Your task to perform on an android device: Do I have any events today? Image 0: 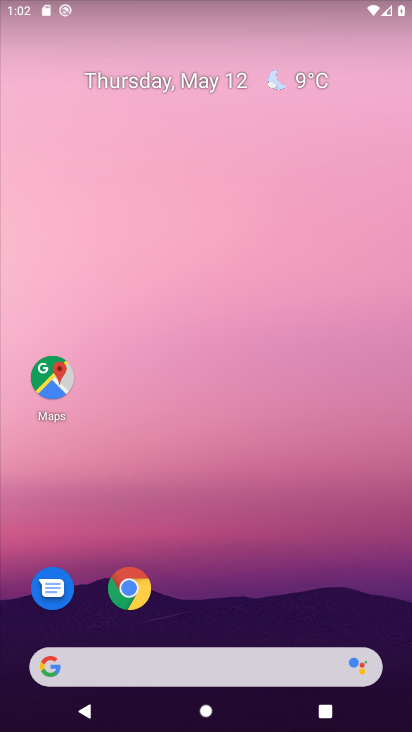
Step 0: click (244, 14)
Your task to perform on an android device: Do I have any events today? Image 1: 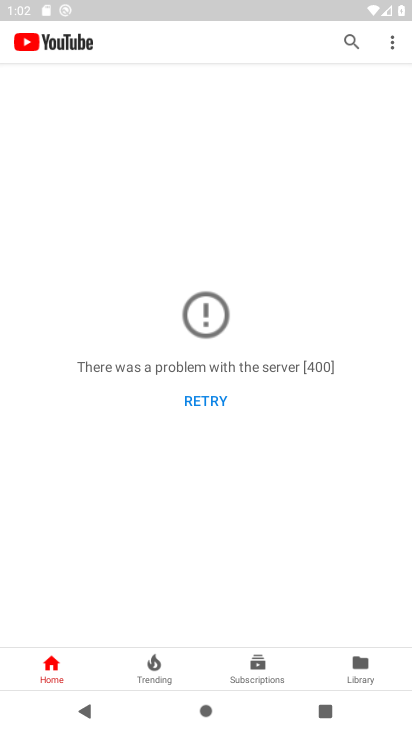
Step 1: press home button
Your task to perform on an android device: Do I have any events today? Image 2: 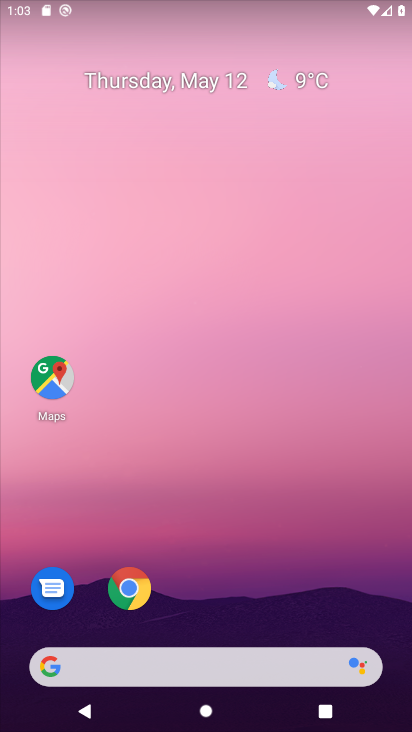
Step 2: drag from (344, 566) to (369, 32)
Your task to perform on an android device: Do I have any events today? Image 3: 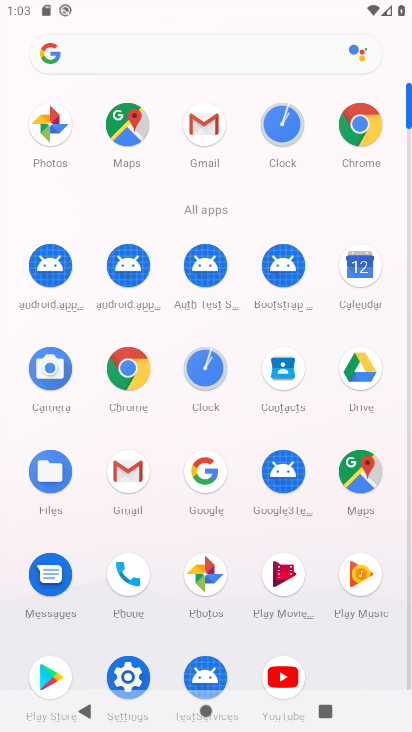
Step 3: click (395, 265)
Your task to perform on an android device: Do I have any events today? Image 4: 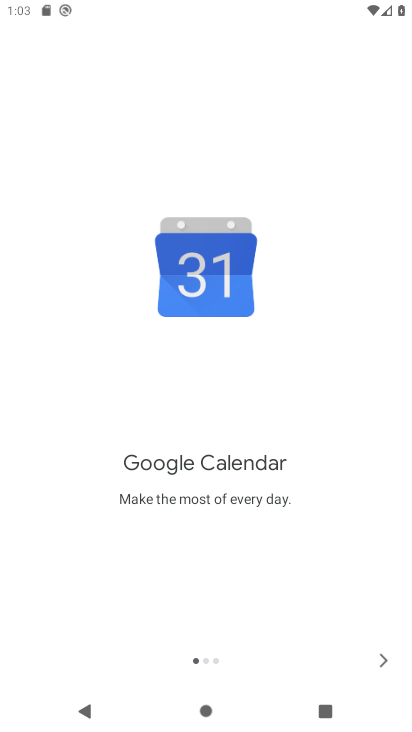
Step 4: click (384, 661)
Your task to perform on an android device: Do I have any events today? Image 5: 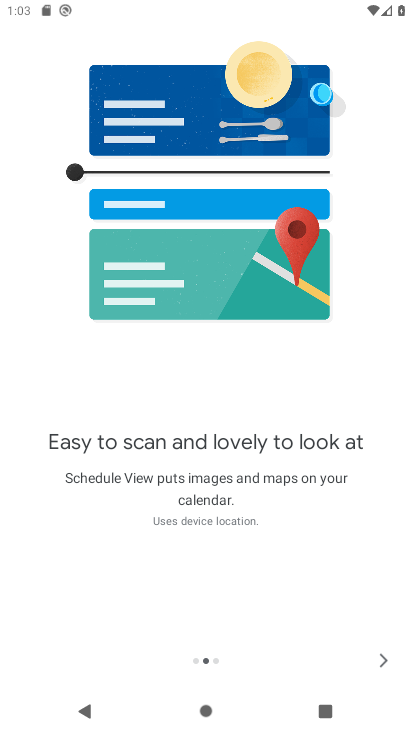
Step 5: click (376, 669)
Your task to perform on an android device: Do I have any events today? Image 6: 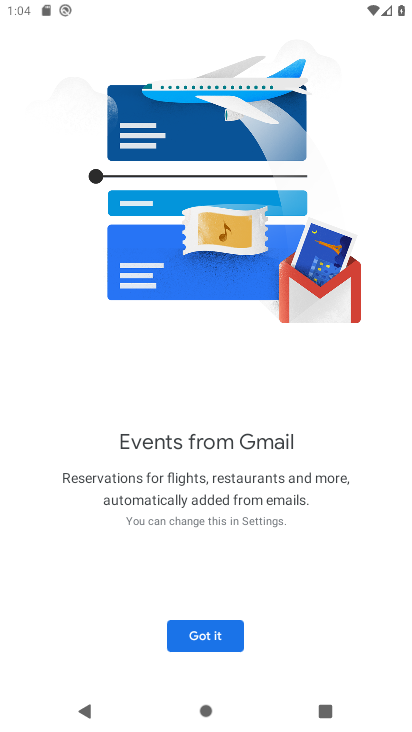
Step 6: click (211, 636)
Your task to perform on an android device: Do I have any events today? Image 7: 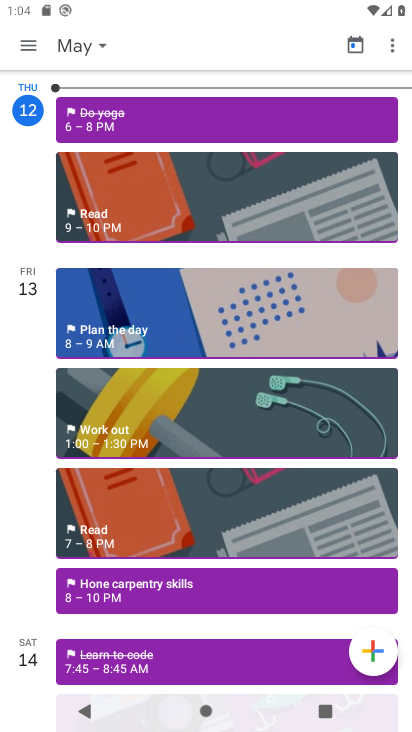
Step 7: click (85, 41)
Your task to perform on an android device: Do I have any events today? Image 8: 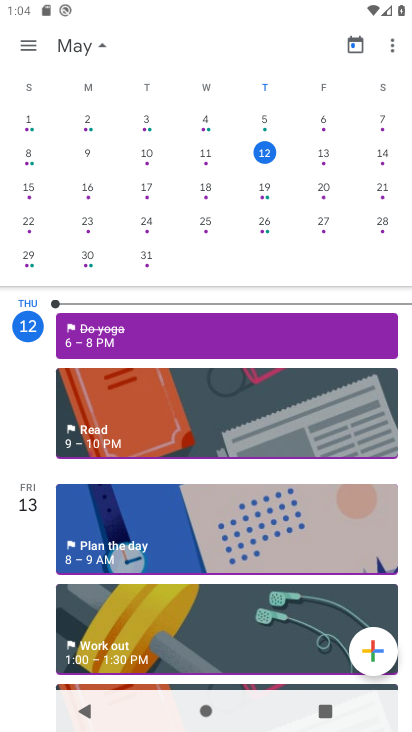
Step 8: task complete